Your task to perform on an android device: View the shopping cart on ebay. Image 0: 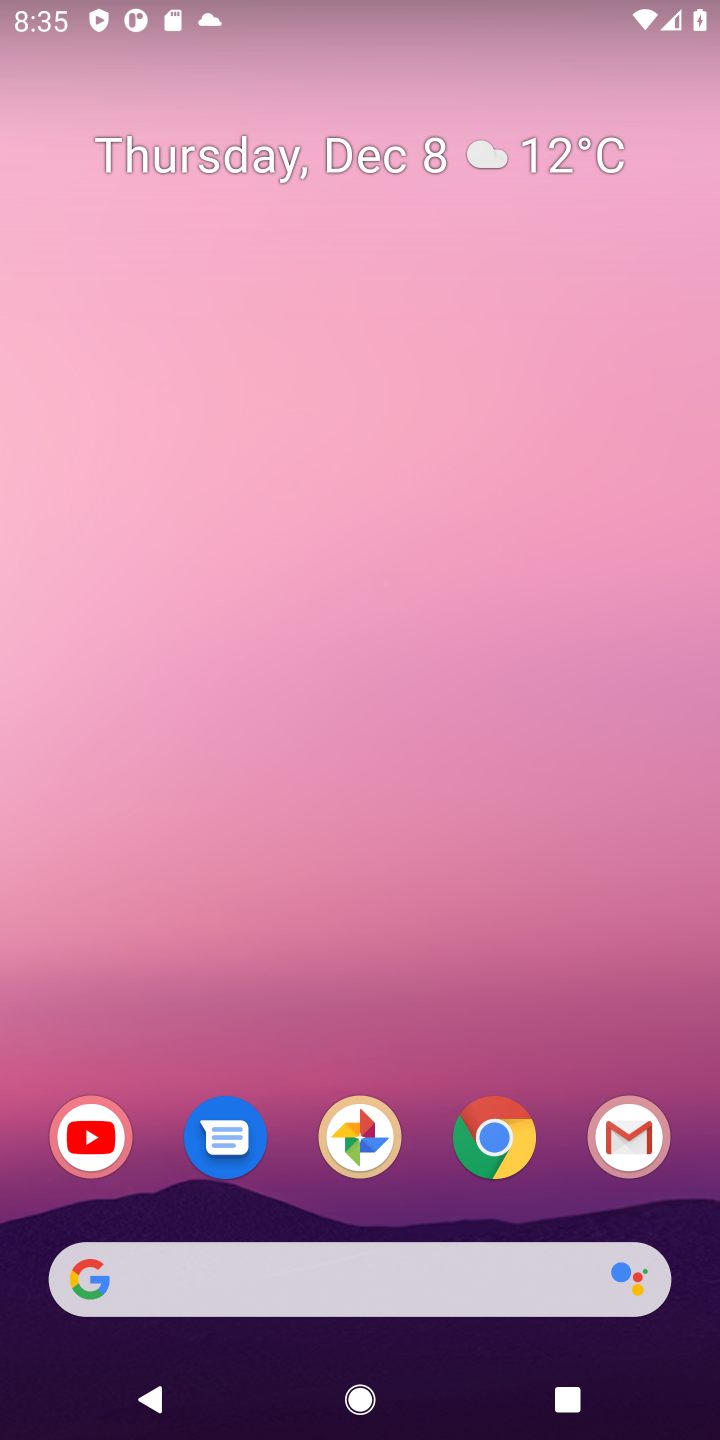
Step 0: click (507, 1144)
Your task to perform on an android device: View the shopping cart on ebay. Image 1: 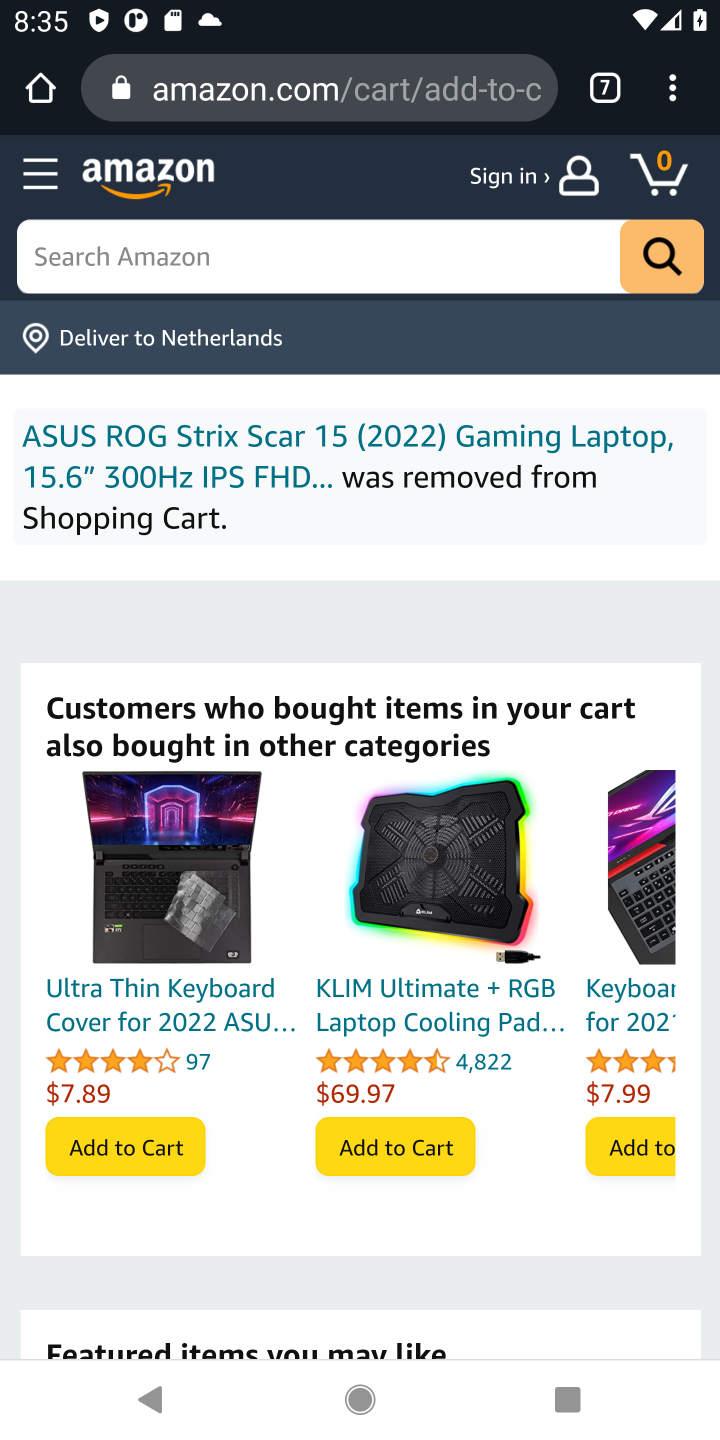
Step 1: click (610, 86)
Your task to perform on an android device: View the shopping cart on ebay. Image 2: 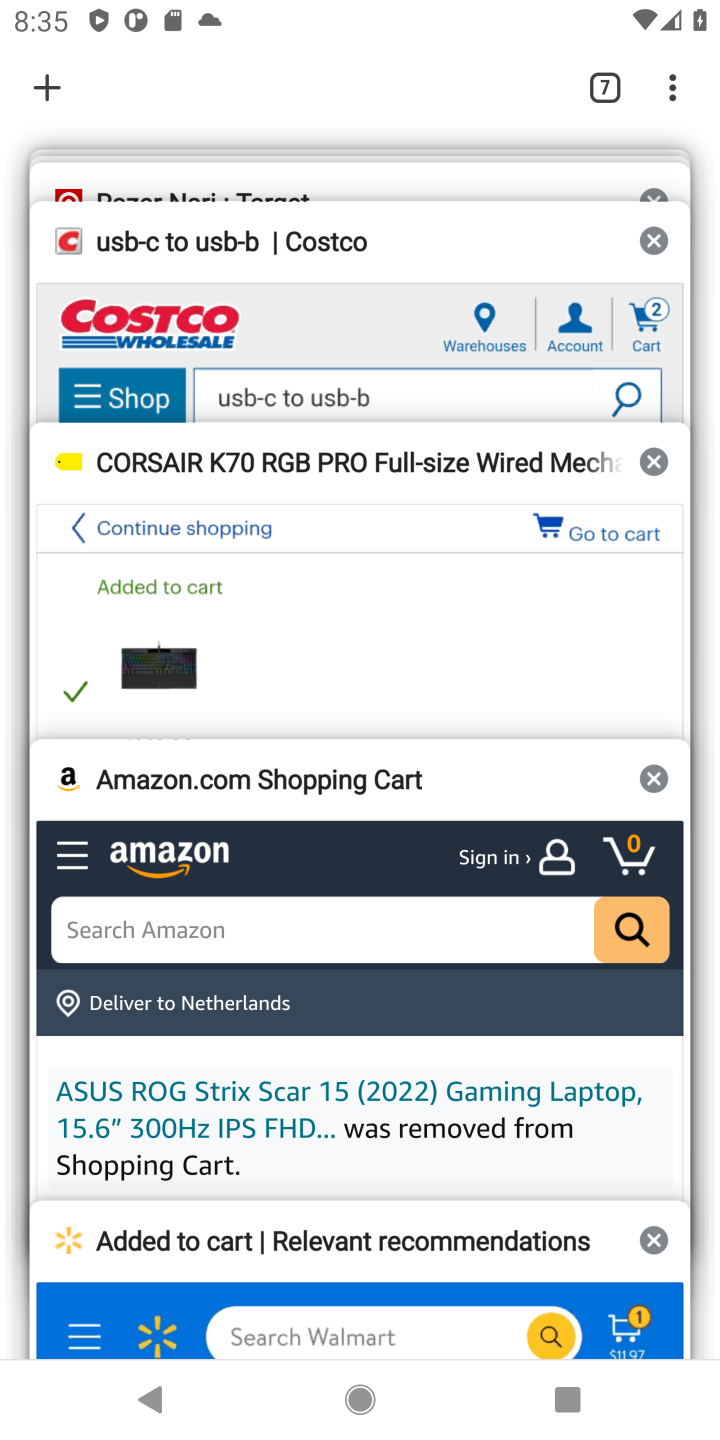
Step 2: drag from (358, 201) to (333, 614)
Your task to perform on an android device: View the shopping cart on ebay. Image 3: 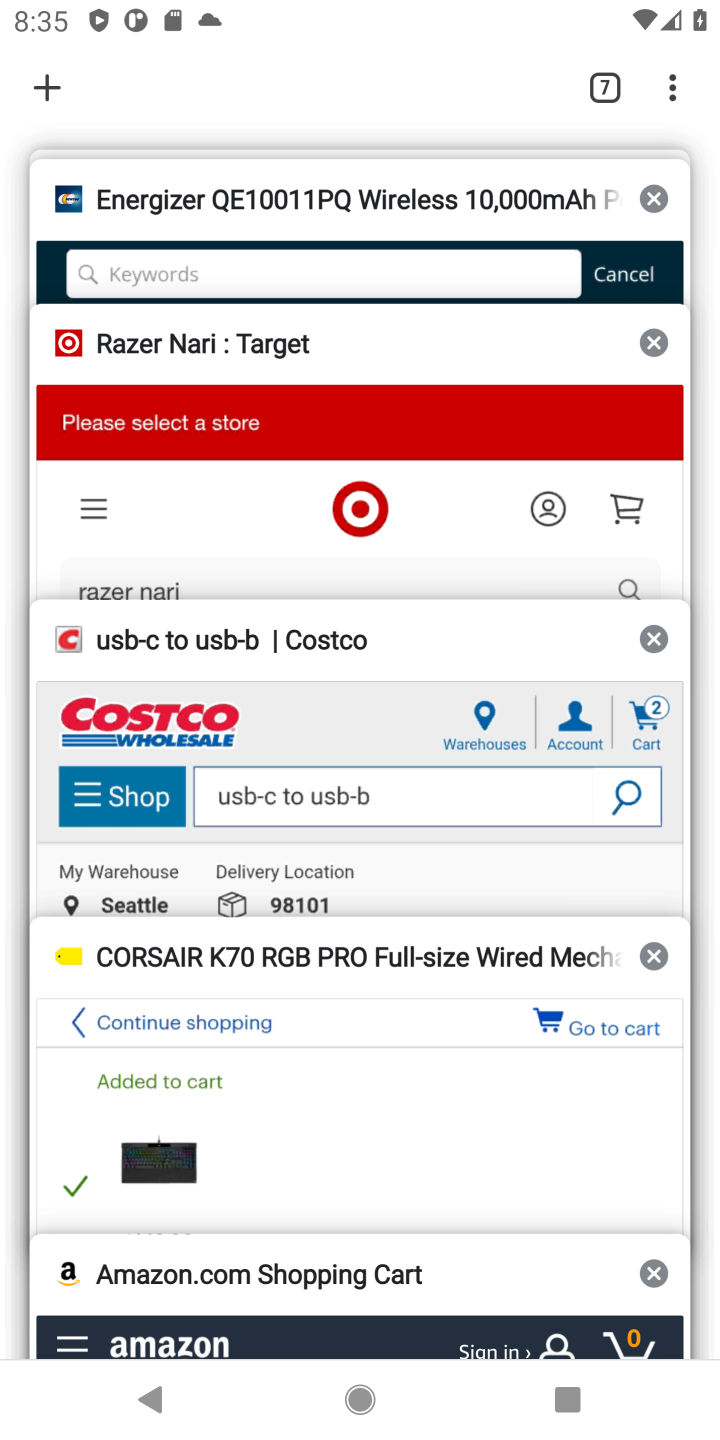
Step 3: drag from (398, 188) to (343, 598)
Your task to perform on an android device: View the shopping cart on ebay. Image 4: 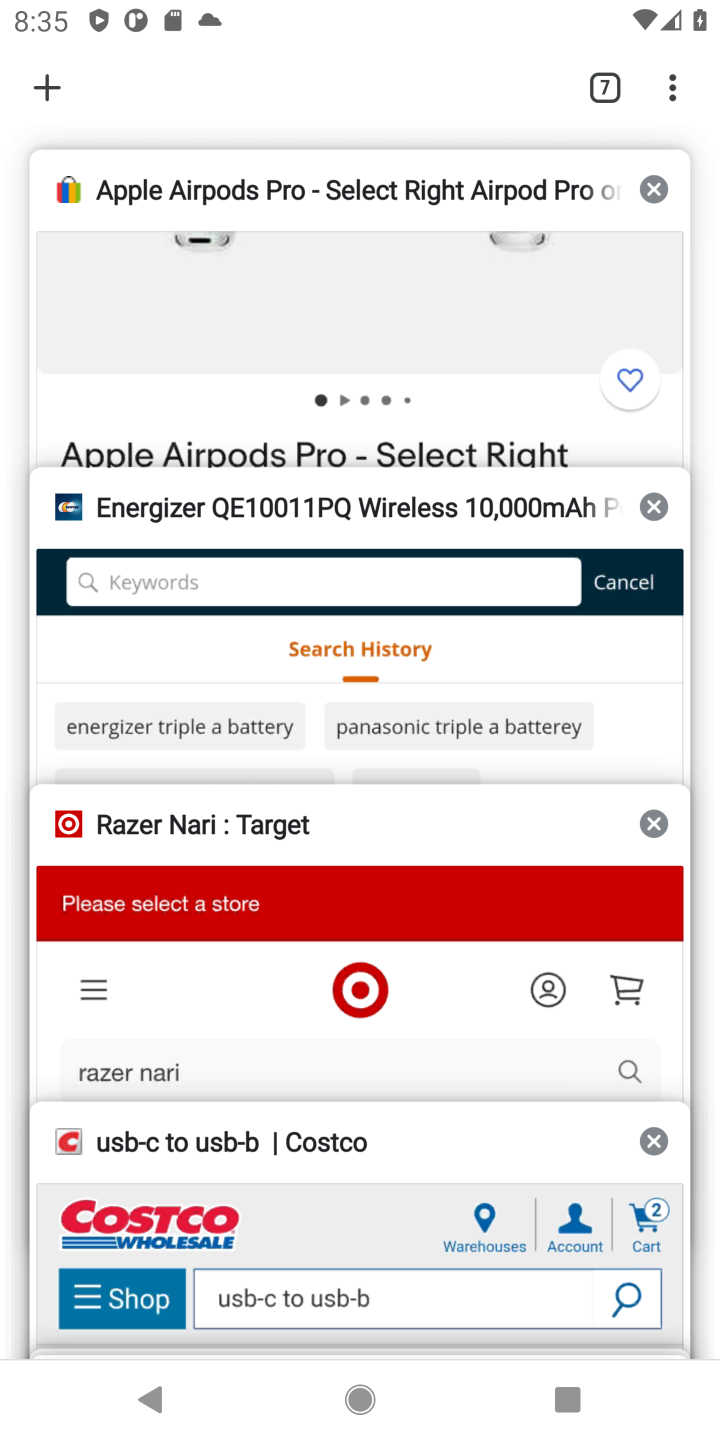
Step 4: click (391, 228)
Your task to perform on an android device: View the shopping cart on ebay. Image 5: 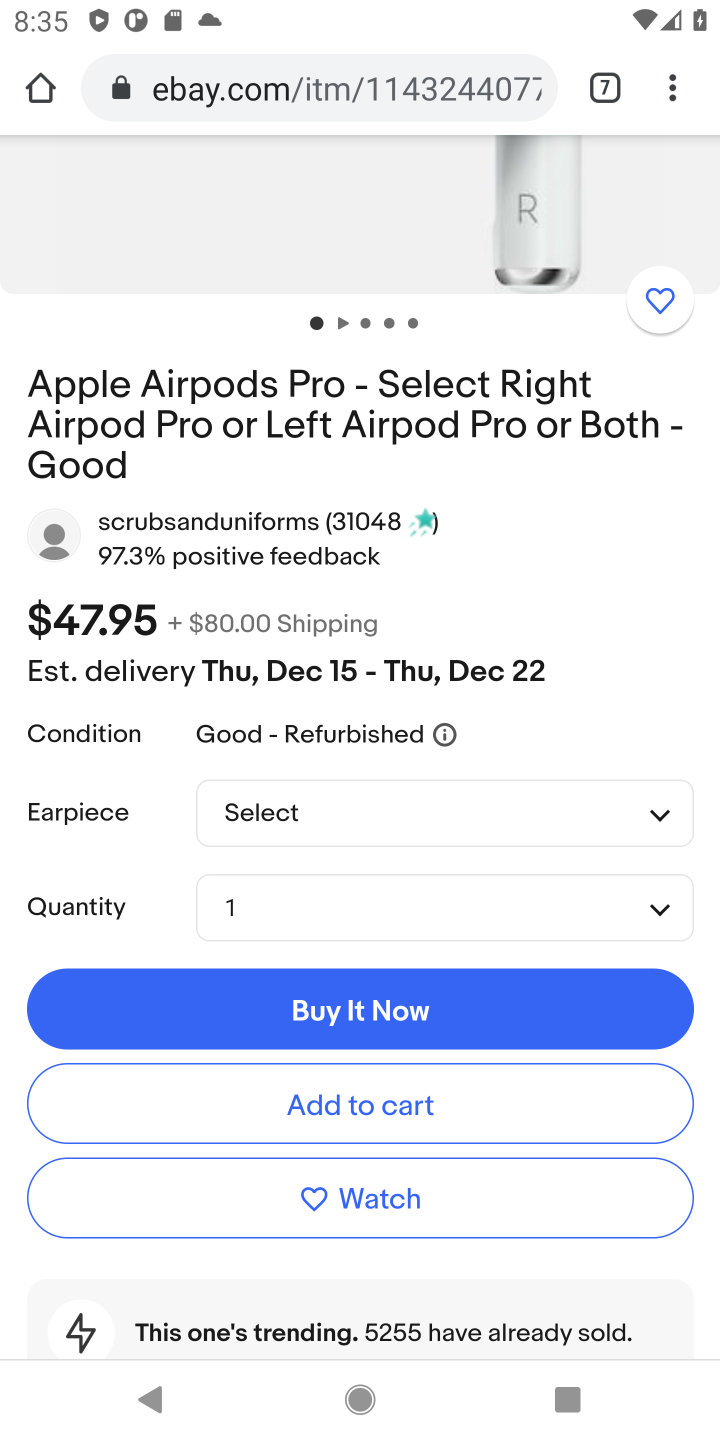
Step 5: drag from (565, 289) to (415, 1170)
Your task to perform on an android device: View the shopping cart on ebay. Image 6: 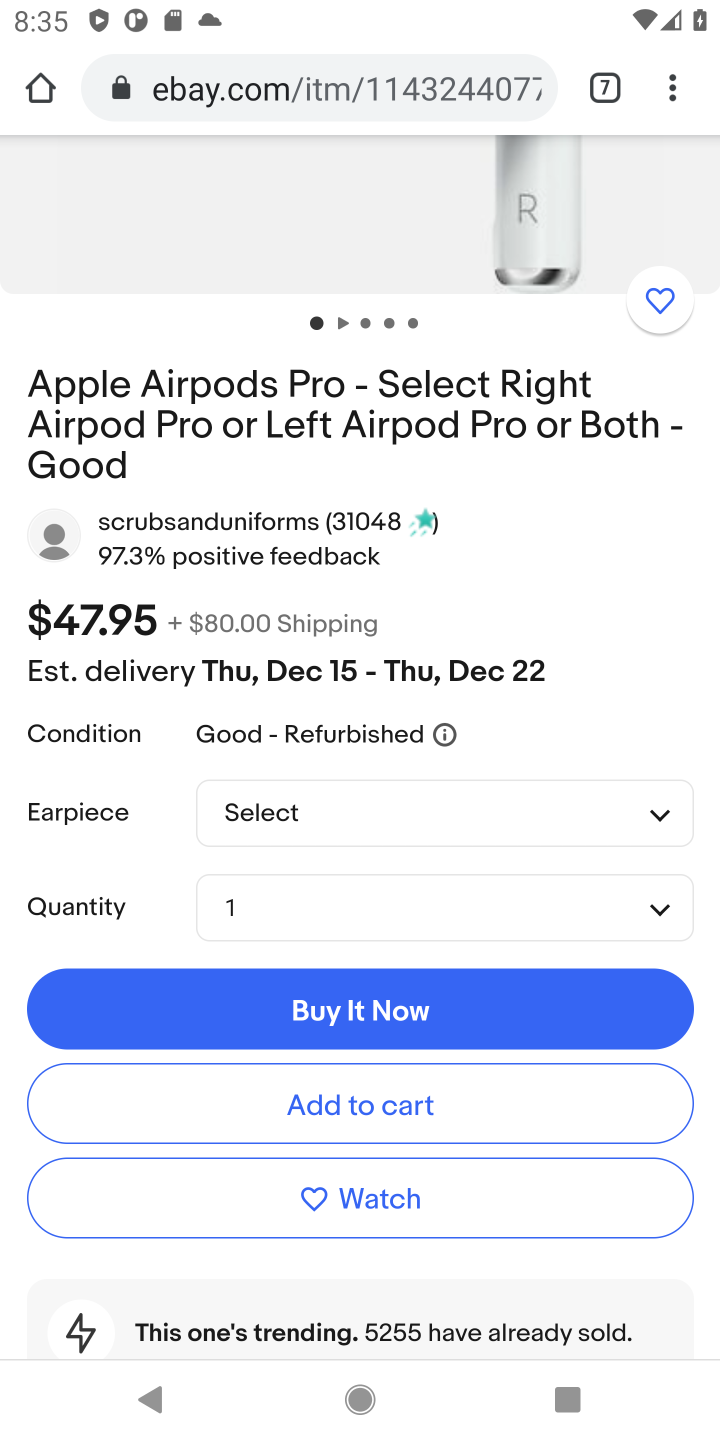
Step 6: drag from (557, 192) to (542, 1134)
Your task to perform on an android device: View the shopping cart on ebay. Image 7: 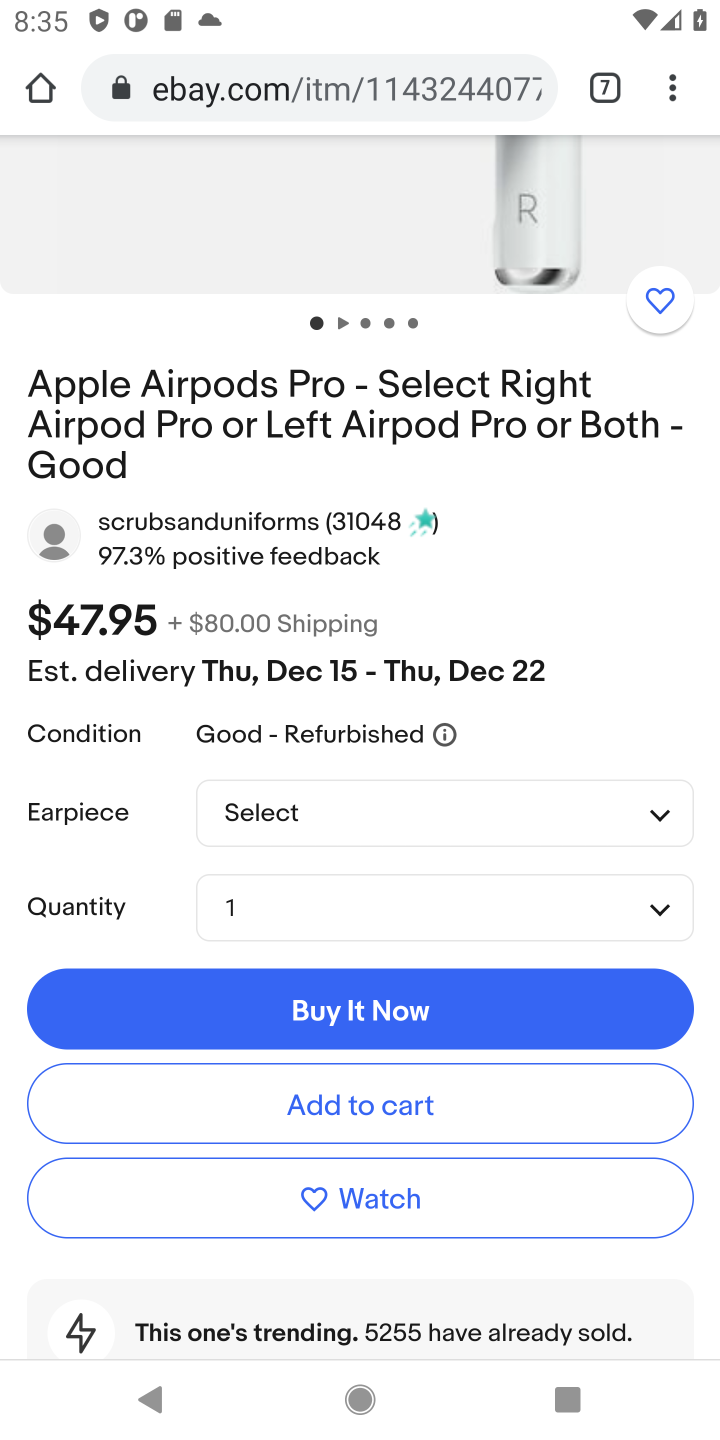
Step 7: drag from (308, 172) to (114, 1128)
Your task to perform on an android device: View the shopping cart on ebay. Image 8: 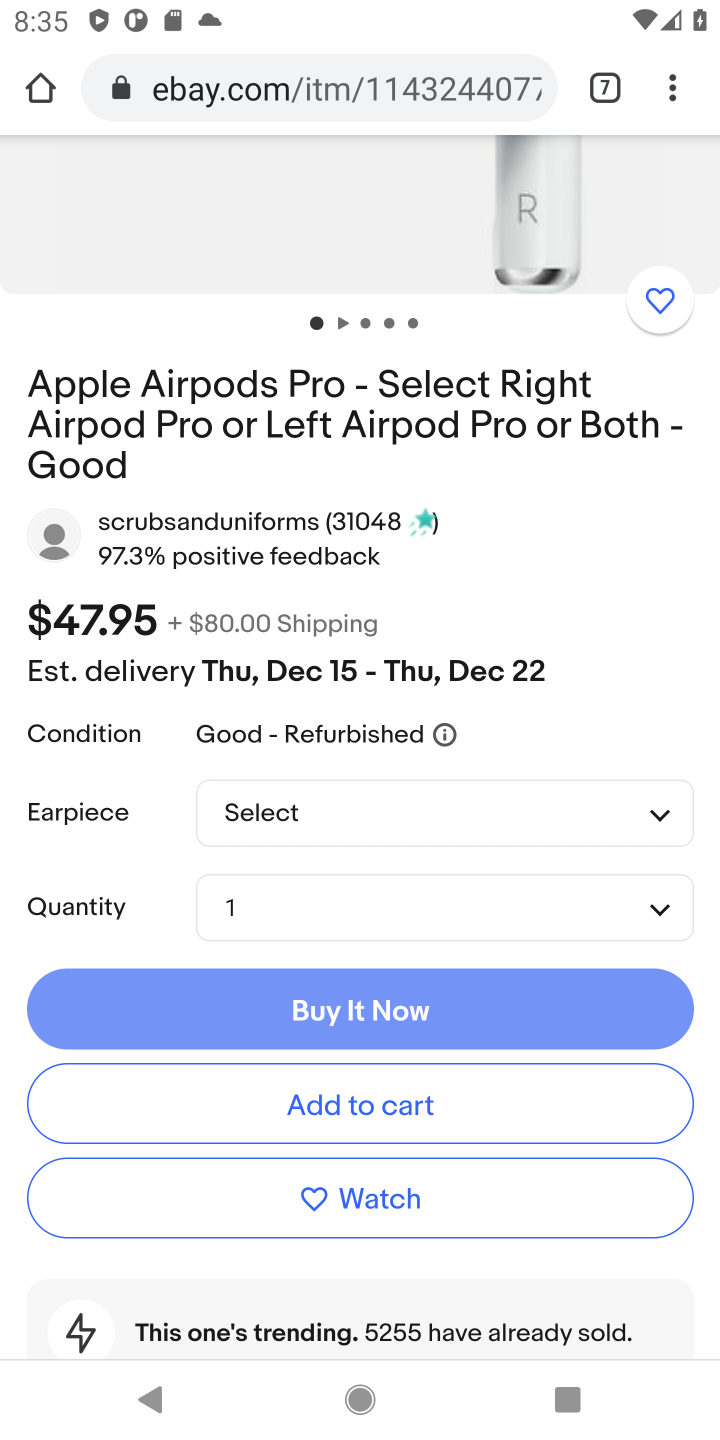
Step 8: drag from (356, 166) to (325, 1331)
Your task to perform on an android device: View the shopping cart on ebay. Image 9: 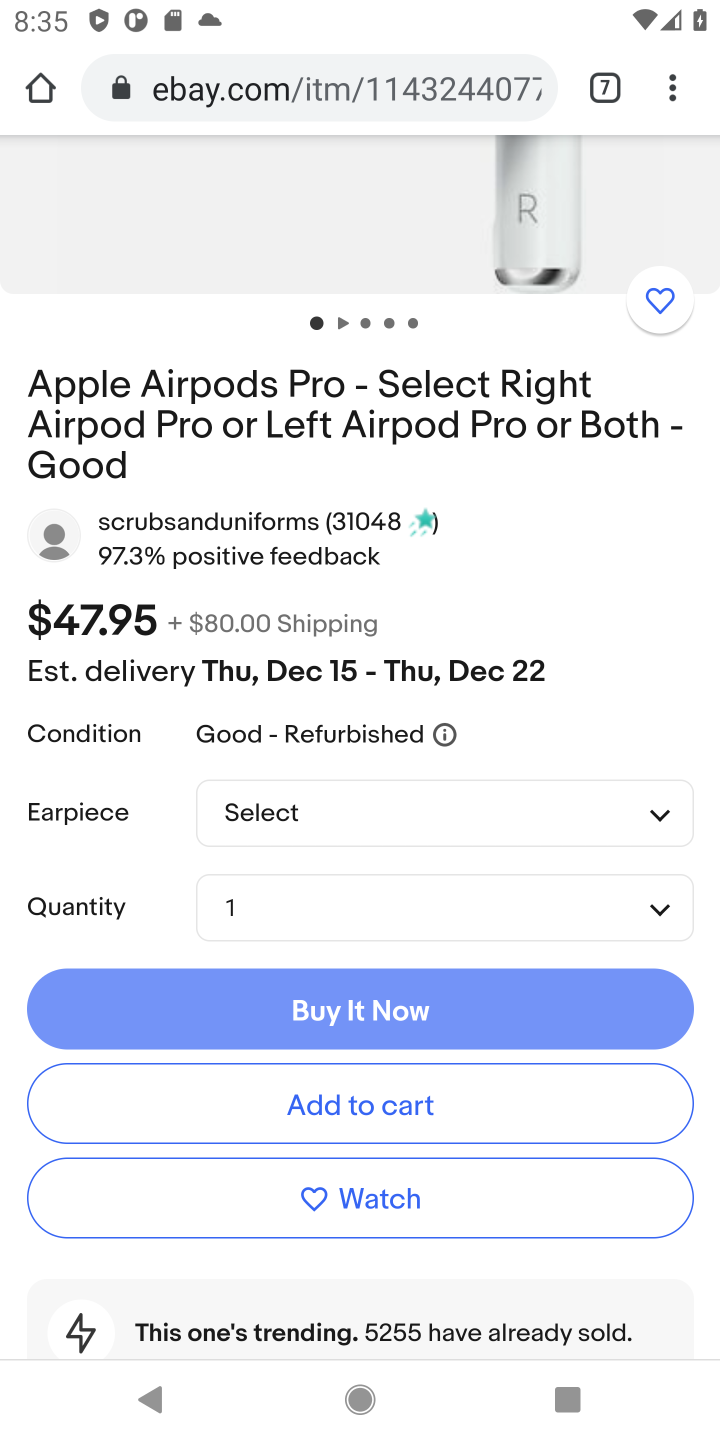
Step 9: drag from (526, 390) to (529, 1416)
Your task to perform on an android device: View the shopping cart on ebay. Image 10: 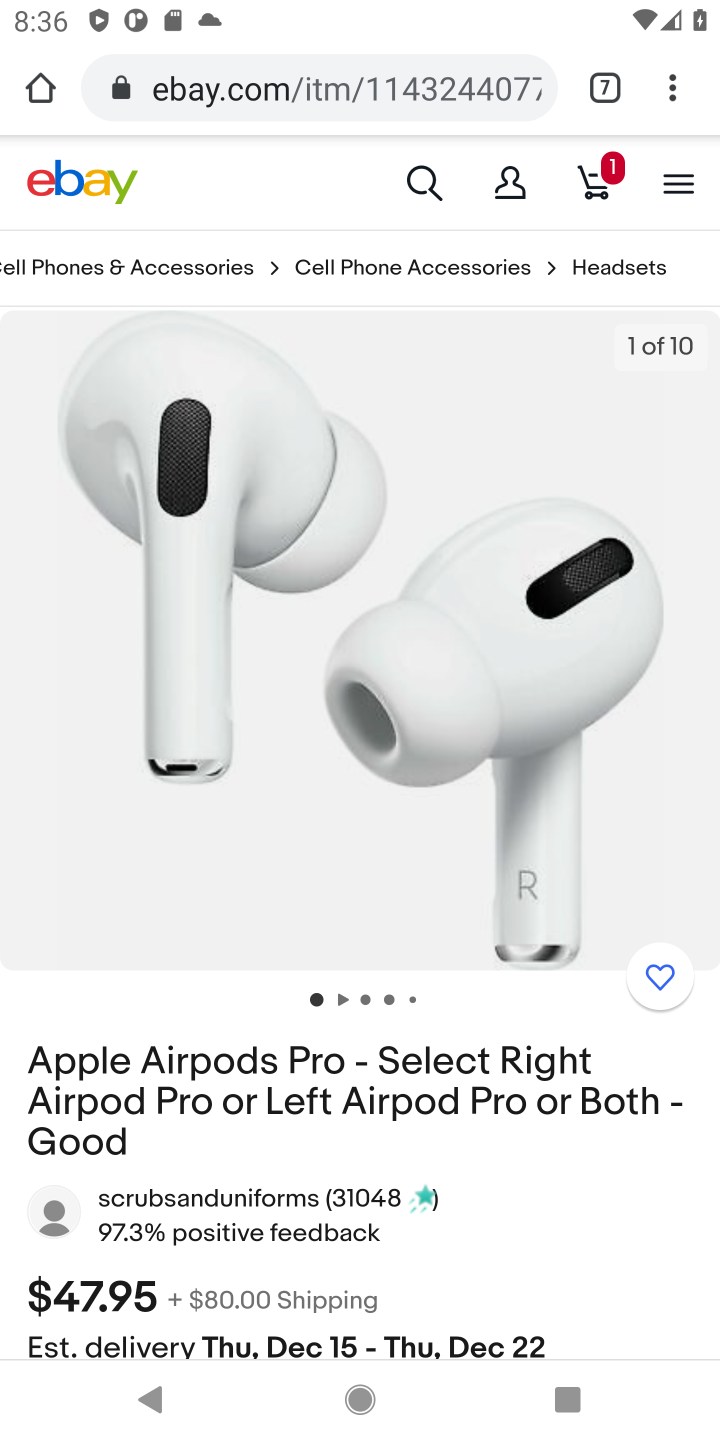
Step 10: click (601, 182)
Your task to perform on an android device: View the shopping cart on ebay. Image 11: 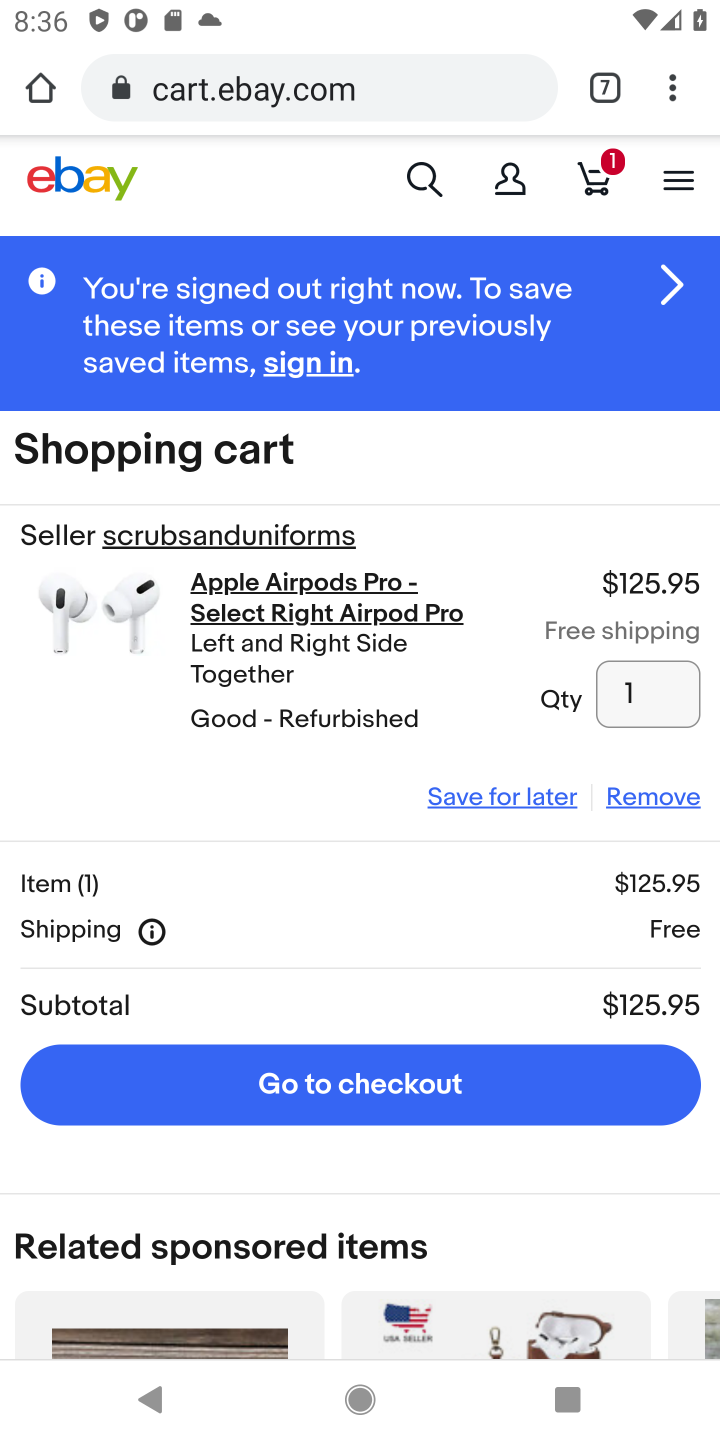
Step 11: task complete